Your task to perform on an android device: see creations saved in the google photos Image 0: 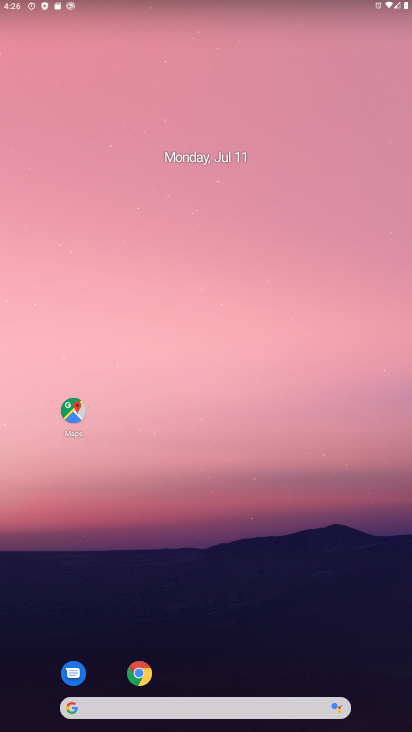
Step 0: drag from (230, 596) to (231, 74)
Your task to perform on an android device: see creations saved in the google photos Image 1: 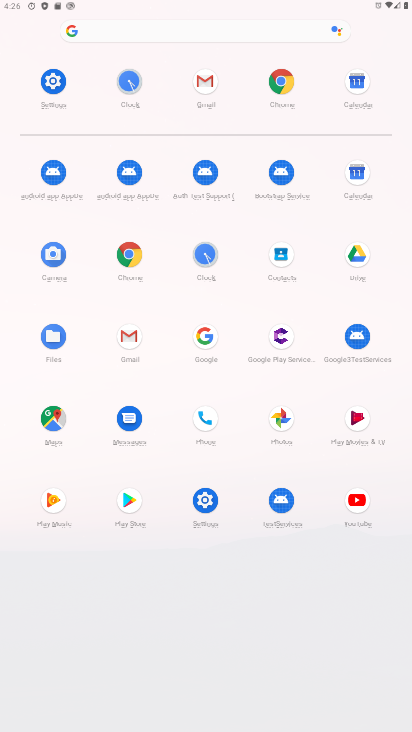
Step 1: click (286, 418)
Your task to perform on an android device: see creations saved in the google photos Image 2: 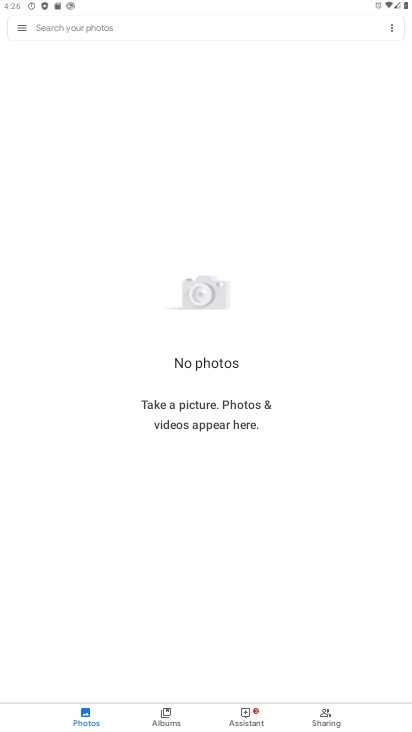
Step 2: click (119, 27)
Your task to perform on an android device: see creations saved in the google photos Image 3: 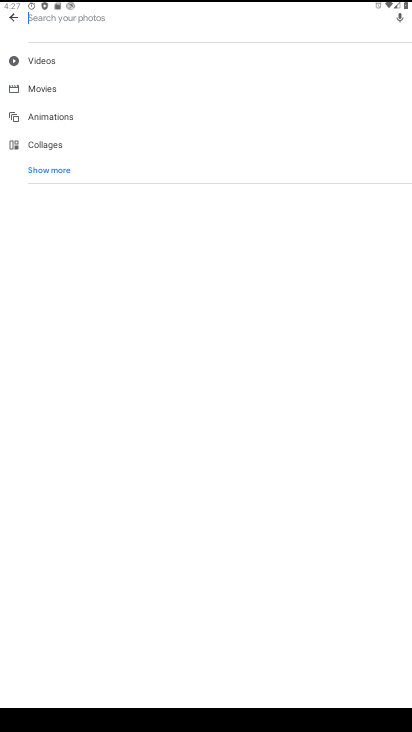
Step 3: click (32, 172)
Your task to perform on an android device: see creations saved in the google photos Image 4: 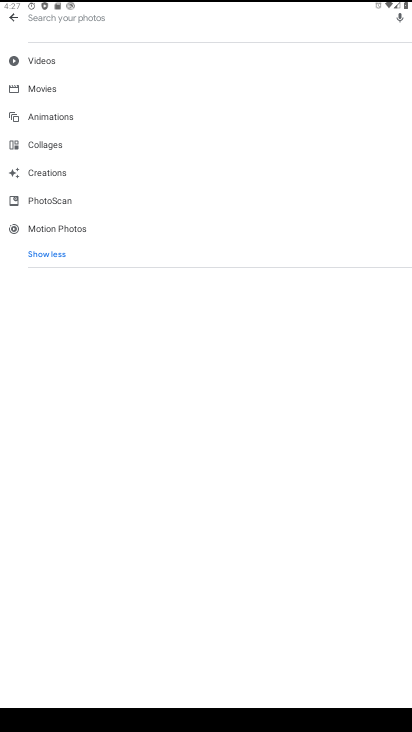
Step 4: click (54, 172)
Your task to perform on an android device: see creations saved in the google photos Image 5: 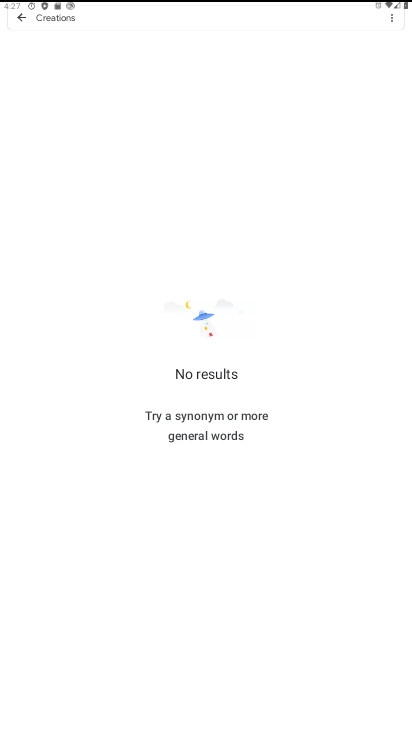
Step 5: task complete